Your task to perform on an android device: open a new tab in the chrome app Image 0: 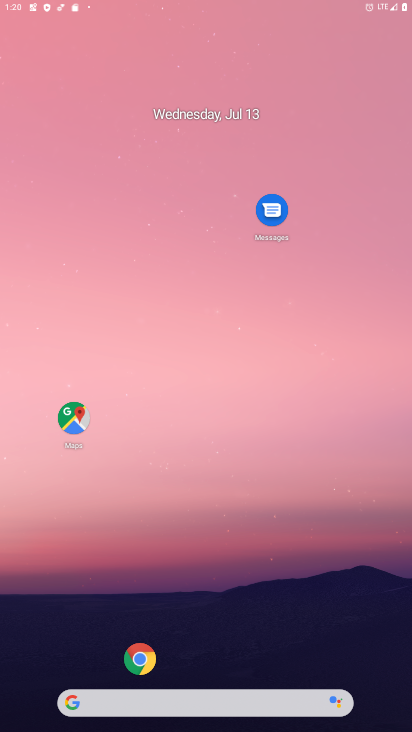
Step 0: click (135, 651)
Your task to perform on an android device: open a new tab in the chrome app Image 1: 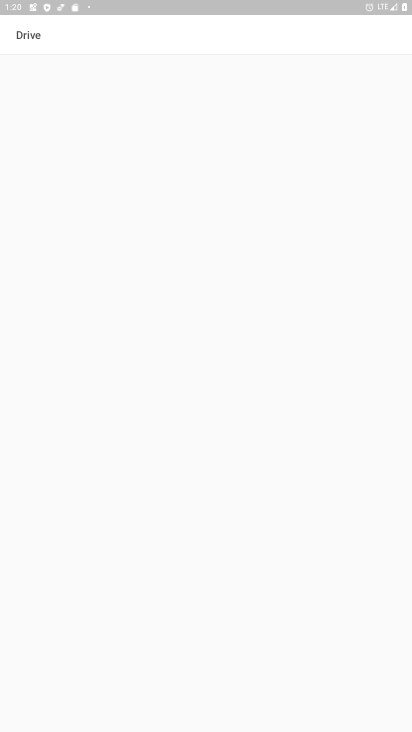
Step 1: press home button
Your task to perform on an android device: open a new tab in the chrome app Image 2: 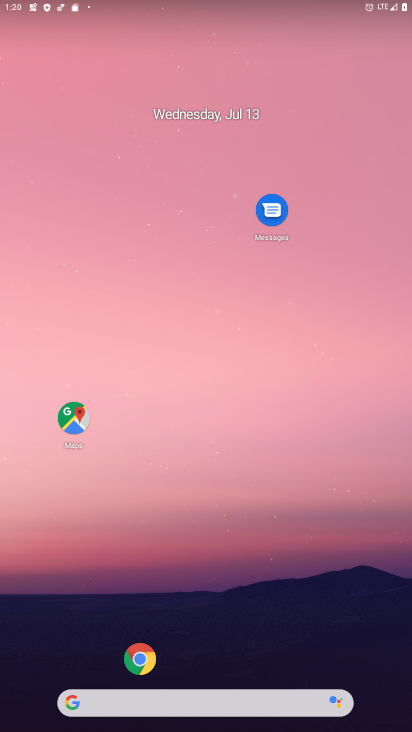
Step 2: click (132, 664)
Your task to perform on an android device: open a new tab in the chrome app Image 3: 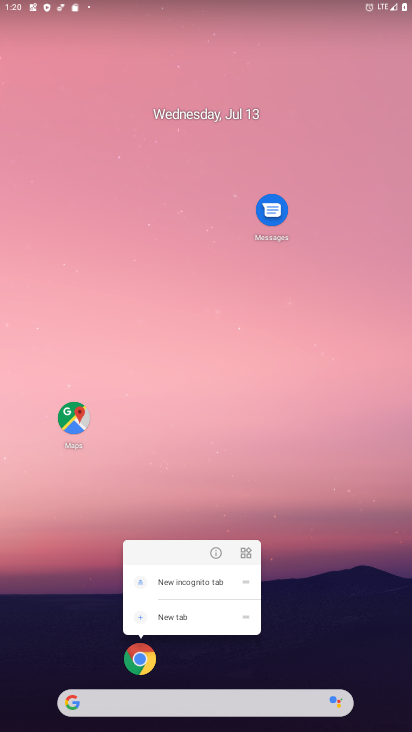
Step 3: click (133, 665)
Your task to perform on an android device: open a new tab in the chrome app Image 4: 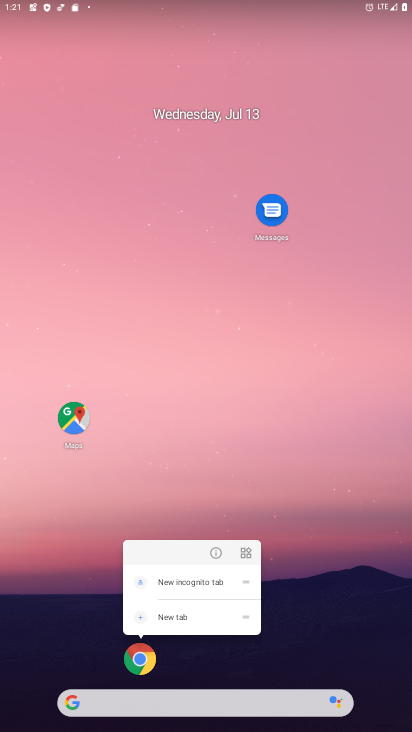
Step 4: task complete